Your task to perform on an android device: open chrome and create a bookmark for the current page Image 0: 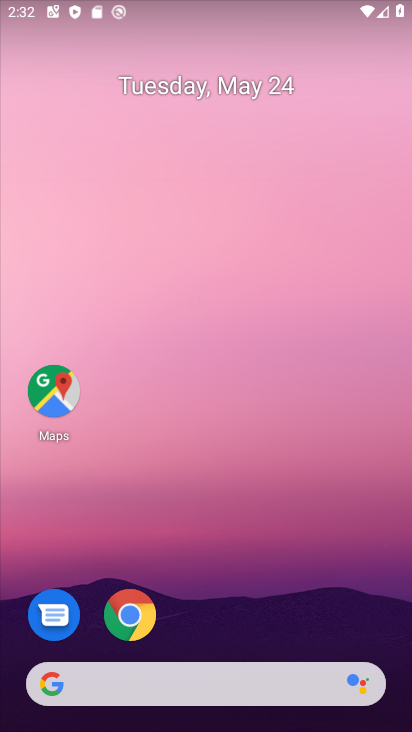
Step 0: drag from (235, 656) to (319, 126)
Your task to perform on an android device: open chrome and create a bookmark for the current page Image 1: 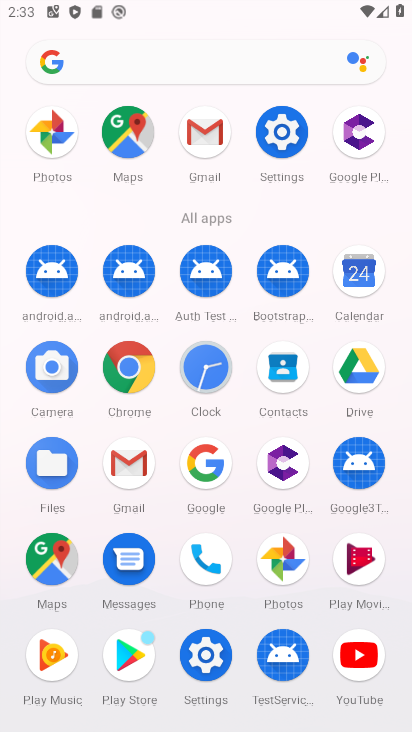
Step 1: click (140, 365)
Your task to perform on an android device: open chrome and create a bookmark for the current page Image 2: 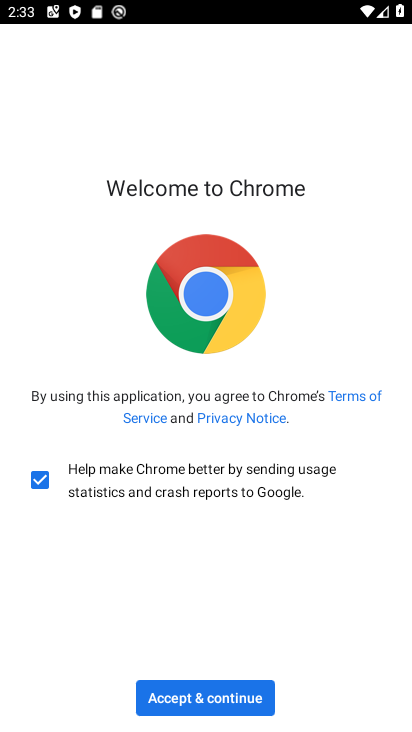
Step 2: click (191, 705)
Your task to perform on an android device: open chrome and create a bookmark for the current page Image 3: 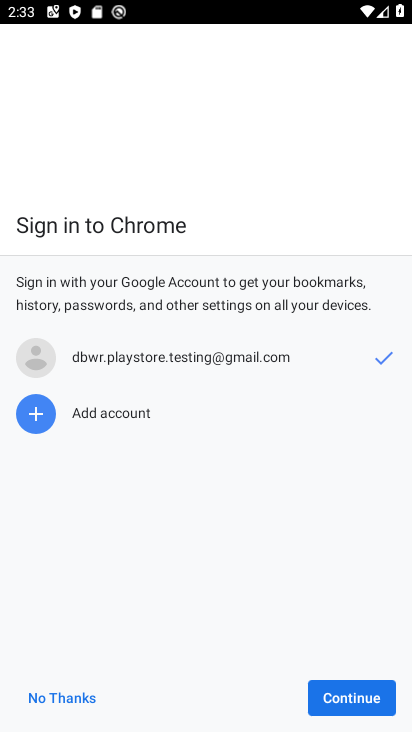
Step 3: click (335, 694)
Your task to perform on an android device: open chrome and create a bookmark for the current page Image 4: 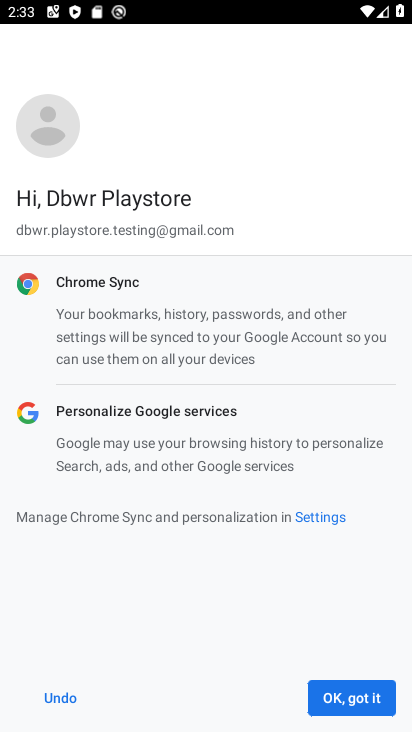
Step 4: click (365, 705)
Your task to perform on an android device: open chrome and create a bookmark for the current page Image 5: 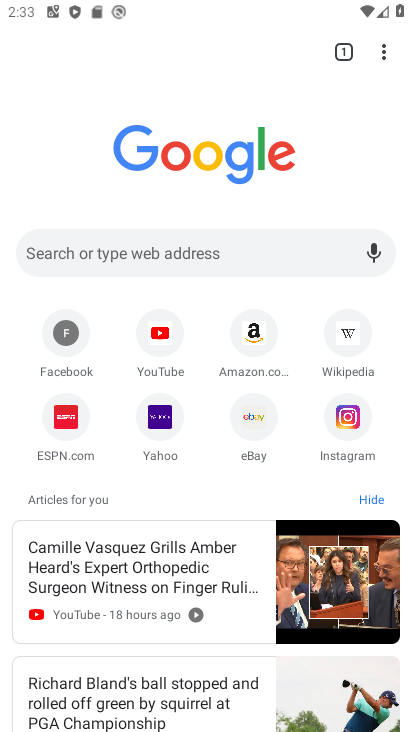
Step 5: click (390, 52)
Your task to perform on an android device: open chrome and create a bookmark for the current page Image 6: 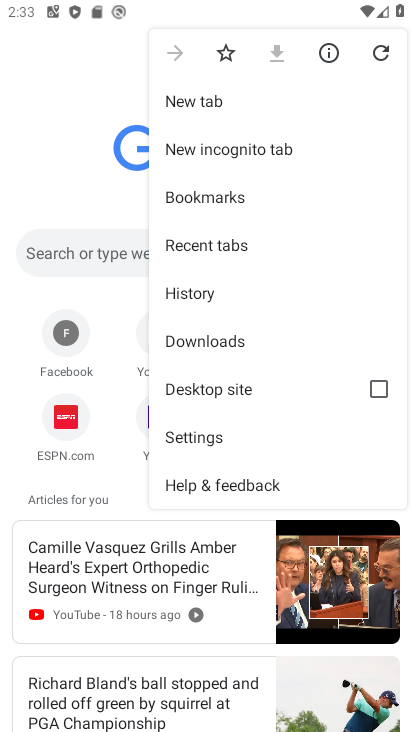
Step 6: click (50, 119)
Your task to perform on an android device: open chrome and create a bookmark for the current page Image 7: 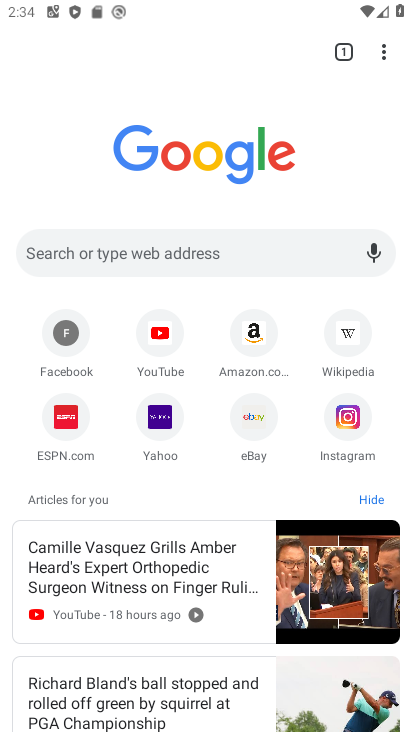
Step 7: click (390, 55)
Your task to perform on an android device: open chrome and create a bookmark for the current page Image 8: 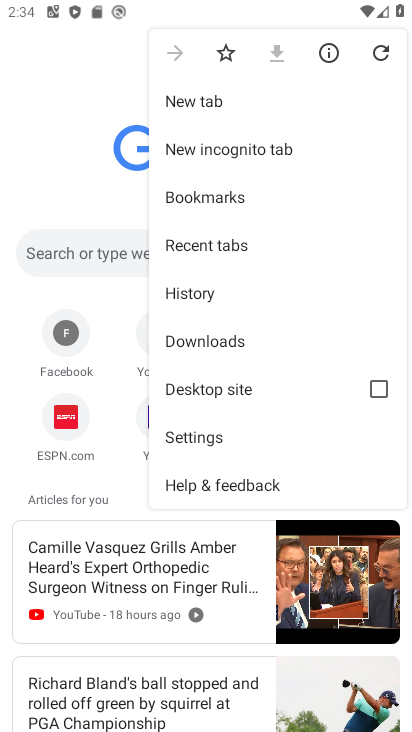
Step 8: click (229, 55)
Your task to perform on an android device: open chrome and create a bookmark for the current page Image 9: 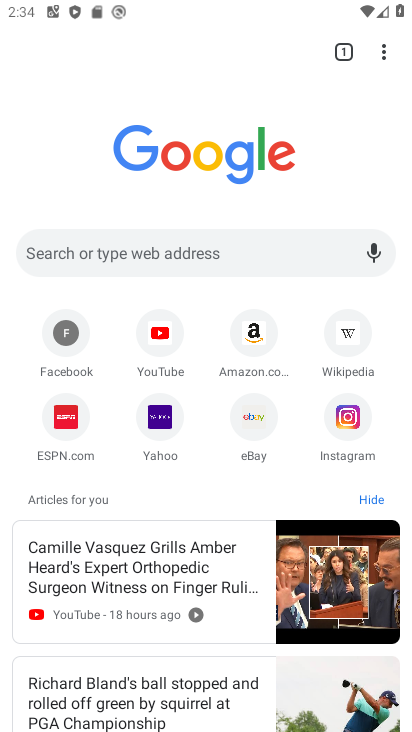
Step 9: task complete